Your task to perform on an android device: open a new tab in the chrome app Image 0: 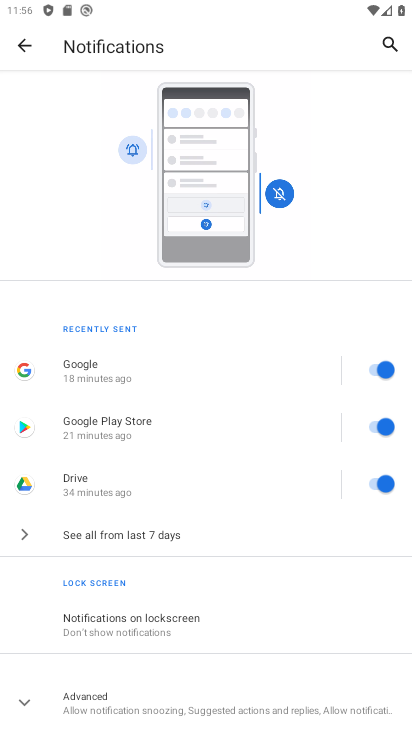
Step 0: press home button
Your task to perform on an android device: open a new tab in the chrome app Image 1: 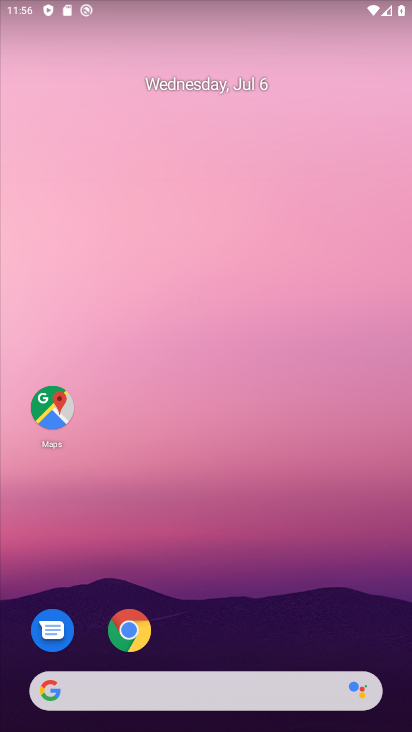
Step 1: drag from (207, 640) to (120, 113)
Your task to perform on an android device: open a new tab in the chrome app Image 2: 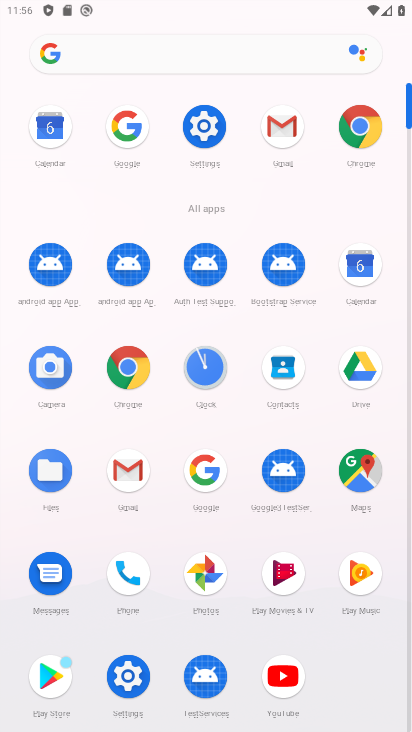
Step 2: click (371, 154)
Your task to perform on an android device: open a new tab in the chrome app Image 3: 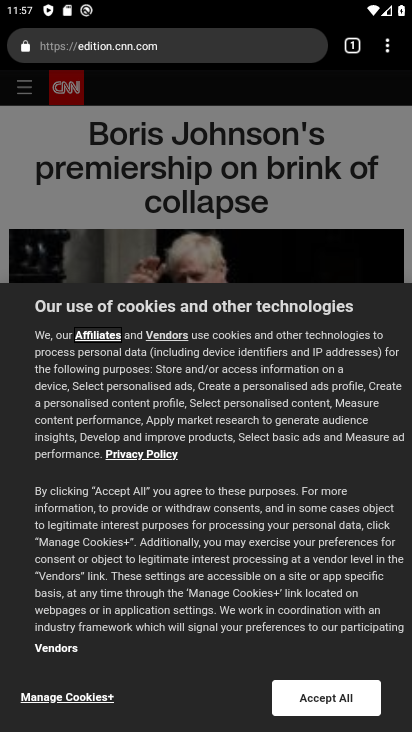
Step 3: click (358, 43)
Your task to perform on an android device: open a new tab in the chrome app Image 4: 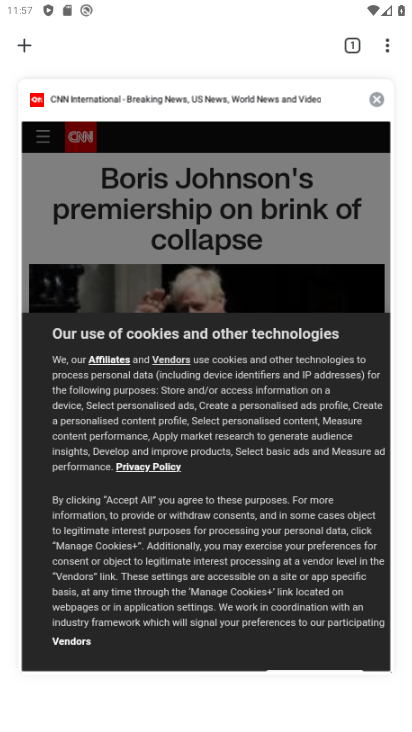
Step 4: click (16, 38)
Your task to perform on an android device: open a new tab in the chrome app Image 5: 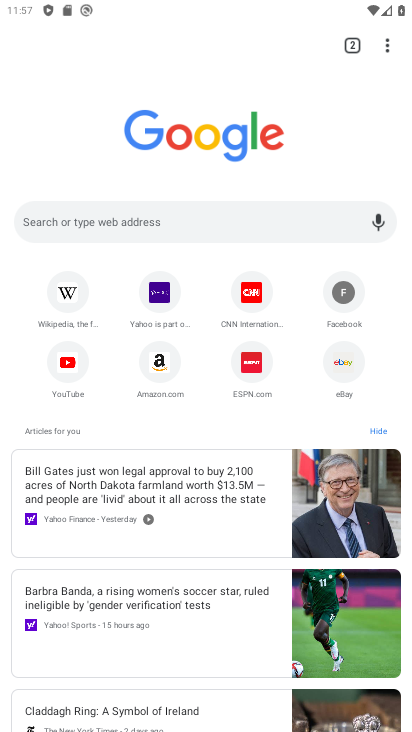
Step 5: task complete